Your task to perform on an android device: change the clock display to analog Image 0: 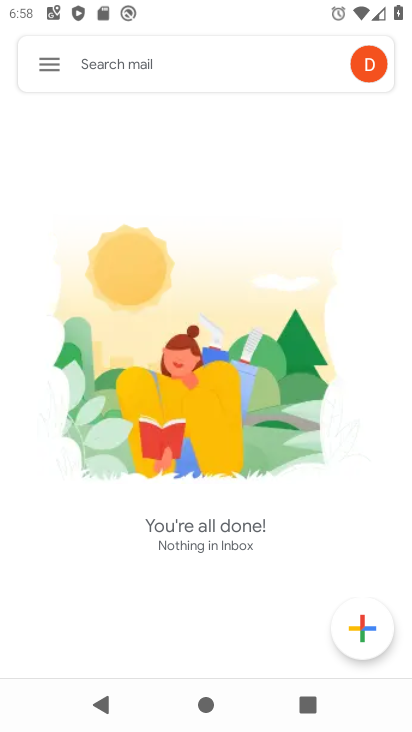
Step 0: press home button
Your task to perform on an android device: change the clock display to analog Image 1: 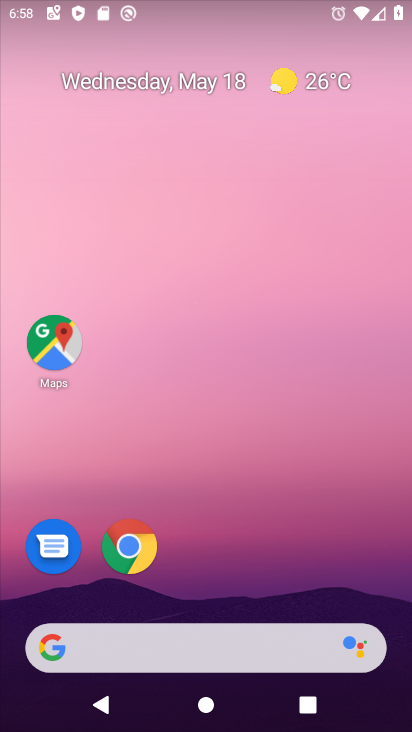
Step 1: drag from (388, 624) to (228, 62)
Your task to perform on an android device: change the clock display to analog Image 2: 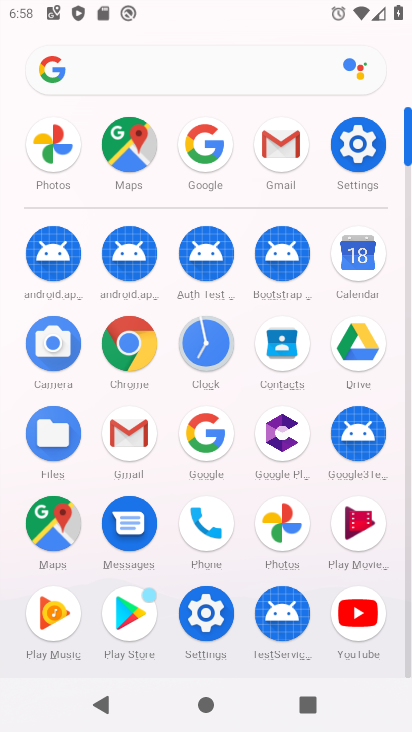
Step 2: click (211, 328)
Your task to perform on an android device: change the clock display to analog Image 3: 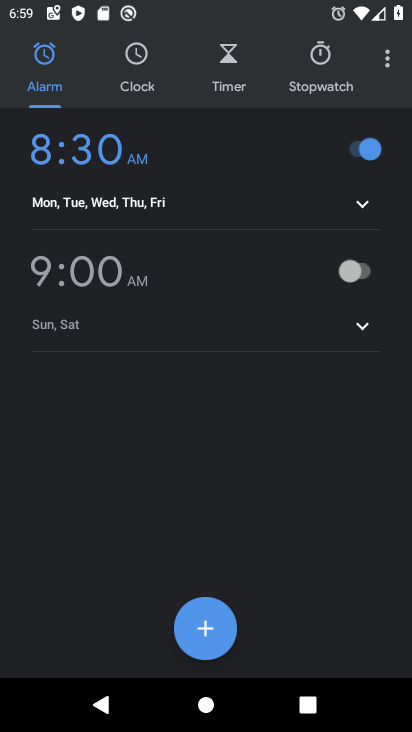
Step 3: click (391, 55)
Your task to perform on an android device: change the clock display to analog Image 4: 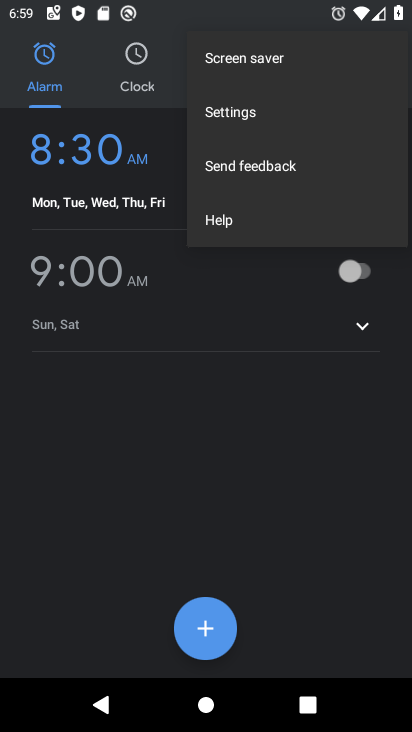
Step 4: click (295, 111)
Your task to perform on an android device: change the clock display to analog Image 5: 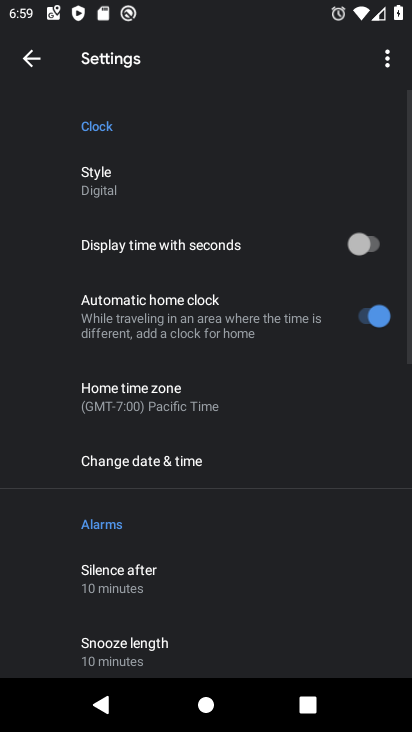
Step 5: click (162, 183)
Your task to perform on an android device: change the clock display to analog Image 6: 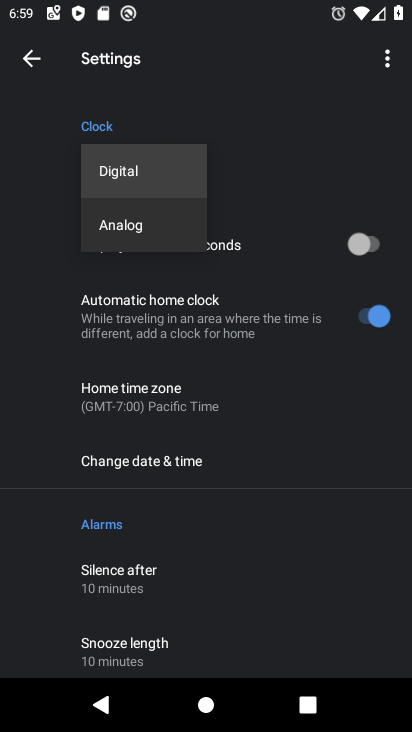
Step 6: click (153, 222)
Your task to perform on an android device: change the clock display to analog Image 7: 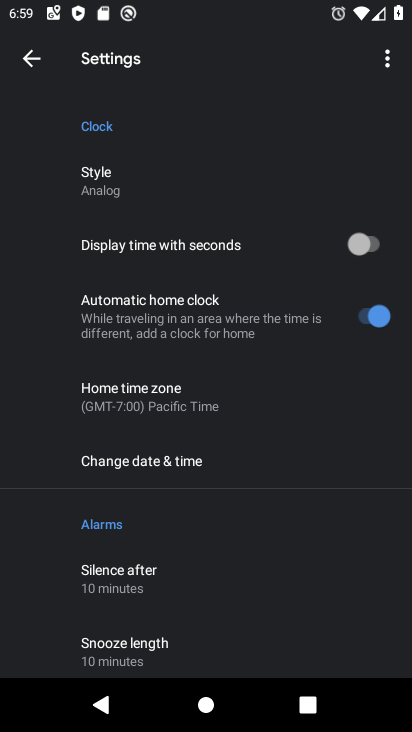
Step 7: task complete